Your task to perform on an android device: Open sound settings Image 0: 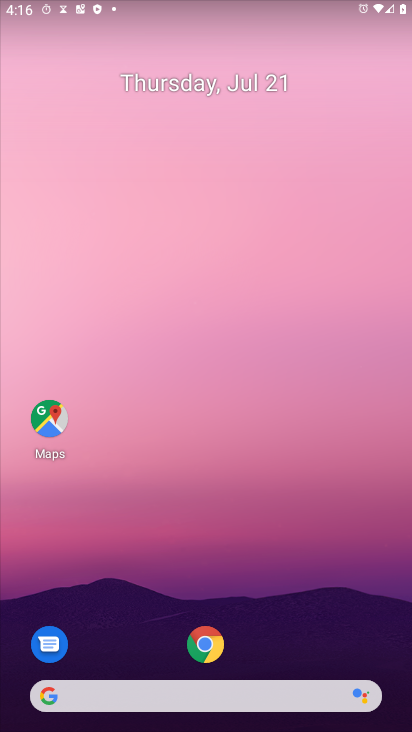
Step 0: press home button
Your task to perform on an android device: Open sound settings Image 1: 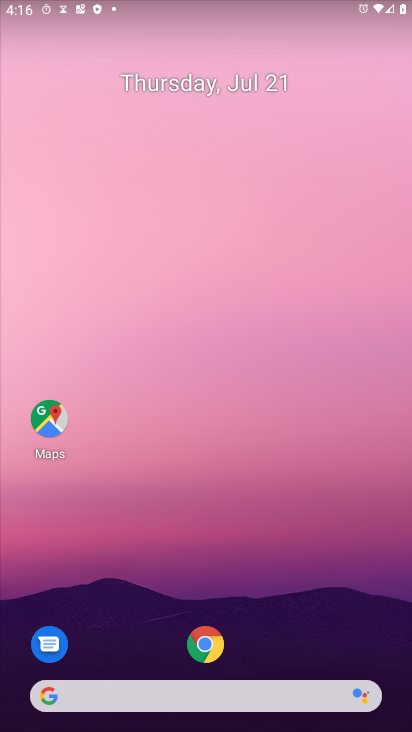
Step 1: drag from (306, 643) to (256, 76)
Your task to perform on an android device: Open sound settings Image 2: 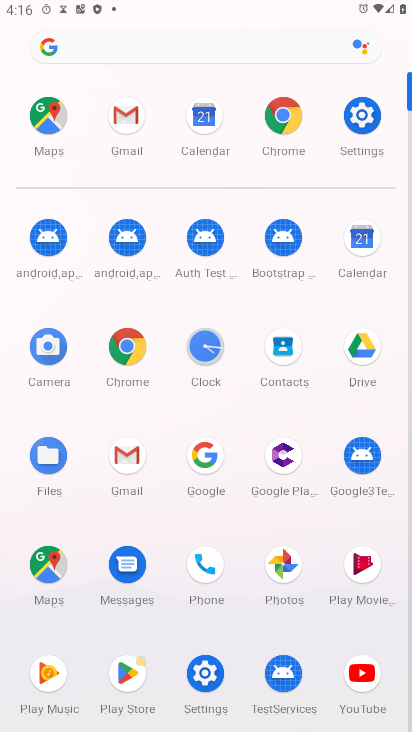
Step 2: click (357, 121)
Your task to perform on an android device: Open sound settings Image 3: 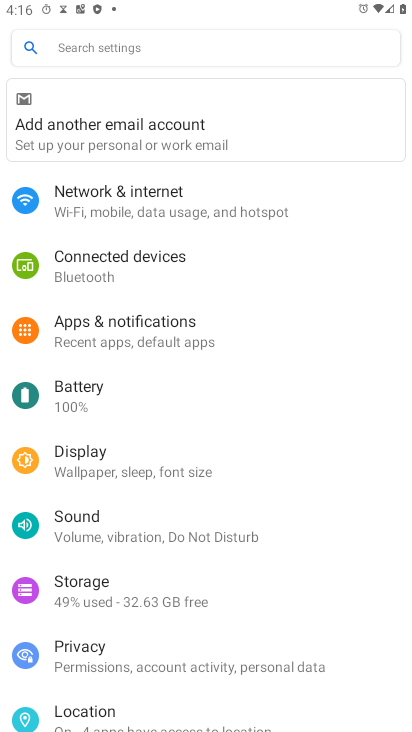
Step 3: click (96, 526)
Your task to perform on an android device: Open sound settings Image 4: 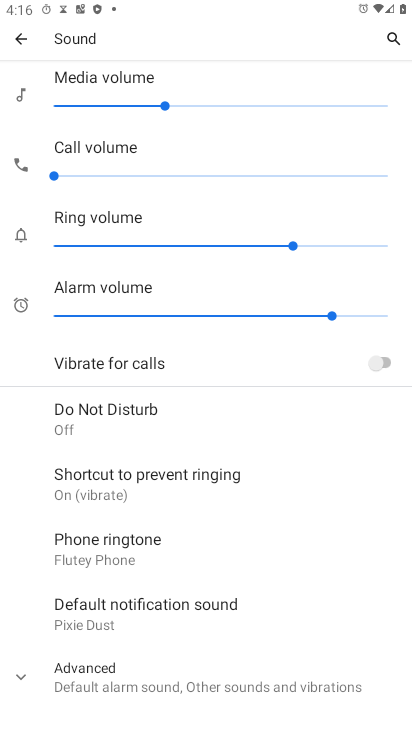
Step 4: task complete